Your task to perform on an android device: Open location settings Image 0: 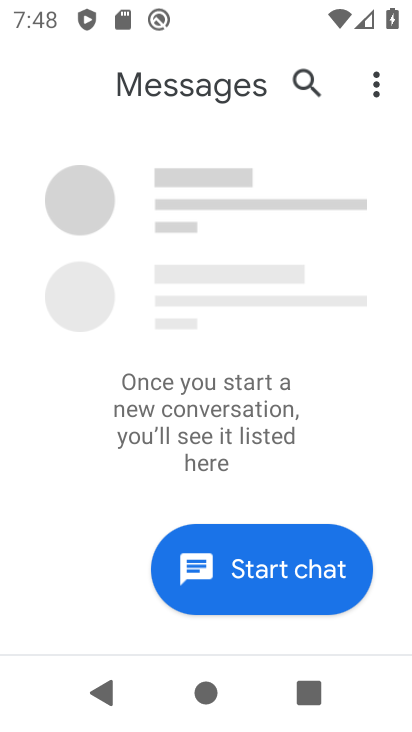
Step 0: press home button
Your task to perform on an android device: Open location settings Image 1: 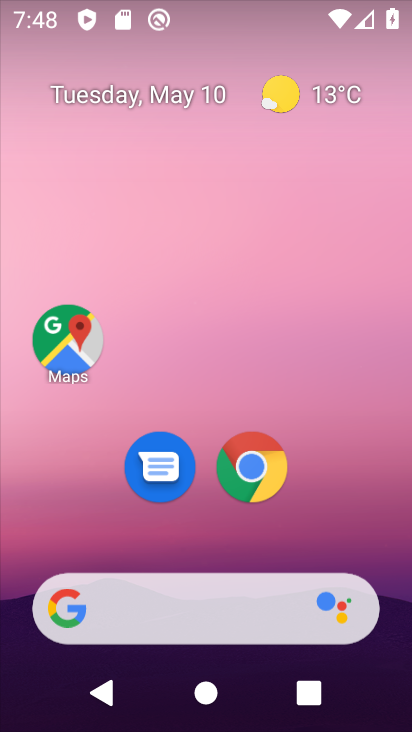
Step 1: drag from (235, 545) to (263, 166)
Your task to perform on an android device: Open location settings Image 2: 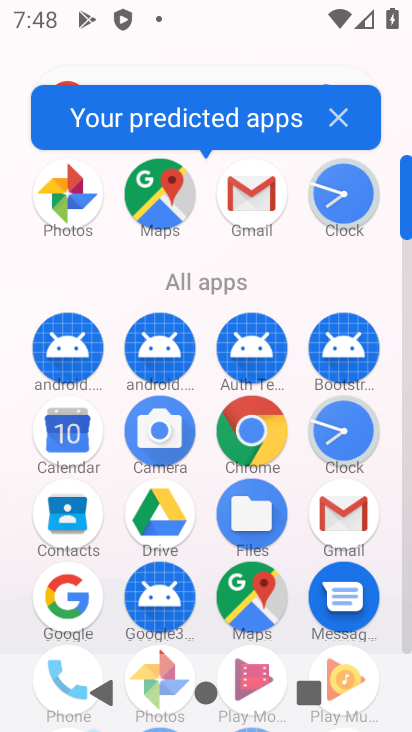
Step 2: drag from (324, 541) to (320, 224)
Your task to perform on an android device: Open location settings Image 3: 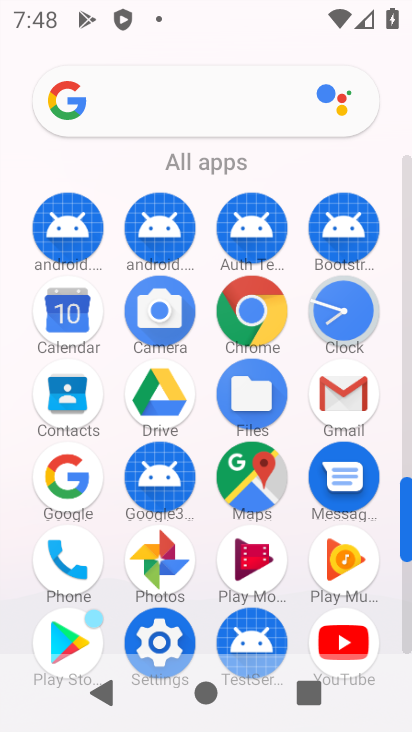
Step 3: click (162, 647)
Your task to perform on an android device: Open location settings Image 4: 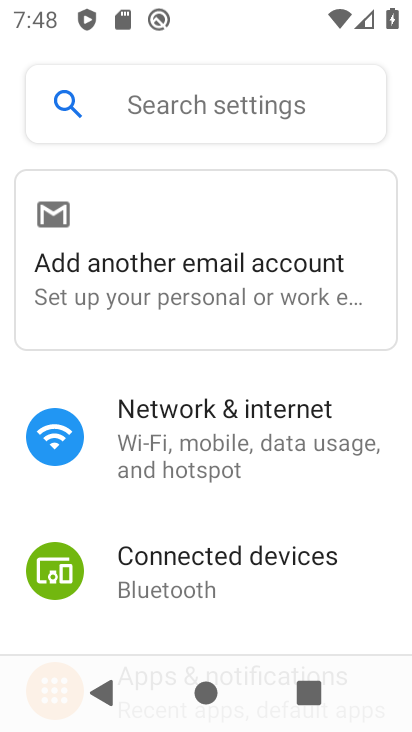
Step 4: drag from (298, 559) to (322, 162)
Your task to perform on an android device: Open location settings Image 5: 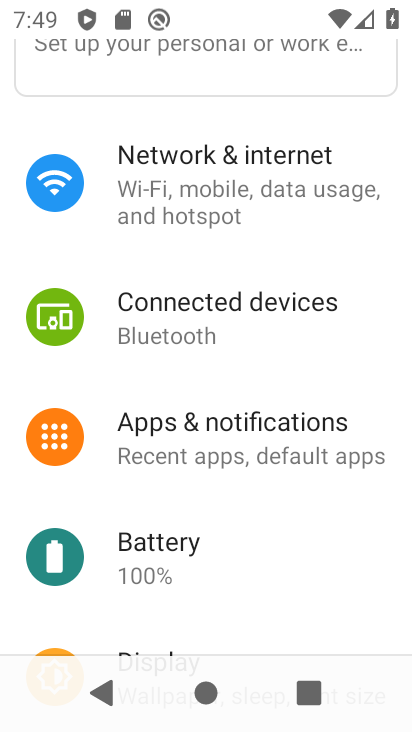
Step 5: drag from (302, 533) to (338, 146)
Your task to perform on an android device: Open location settings Image 6: 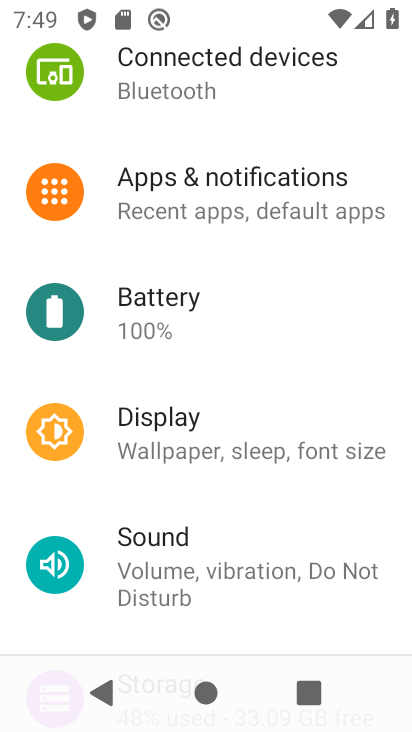
Step 6: drag from (304, 524) to (297, 143)
Your task to perform on an android device: Open location settings Image 7: 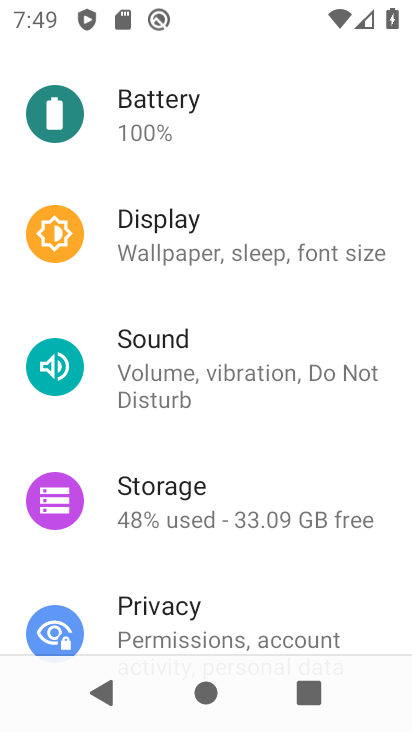
Step 7: drag from (252, 577) to (295, 196)
Your task to perform on an android device: Open location settings Image 8: 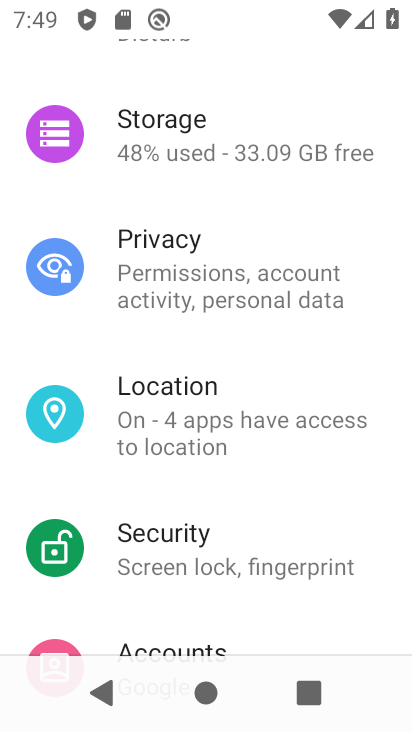
Step 8: drag from (289, 540) to (335, 131)
Your task to perform on an android device: Open location settings Image 9: 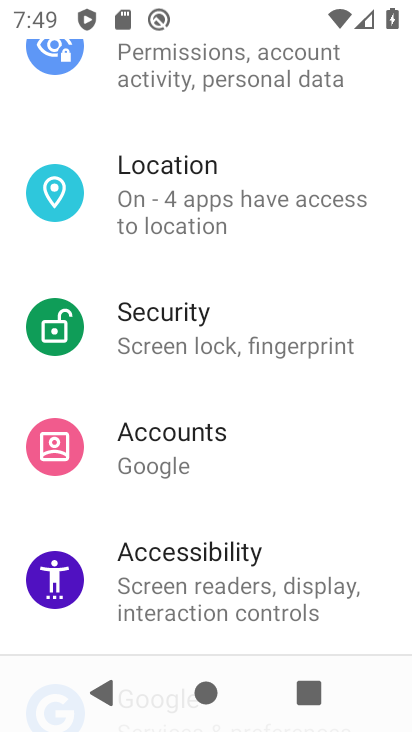
Step 9: click (309, 156)
Your task to perform on an android device: Open location settings Image 10: 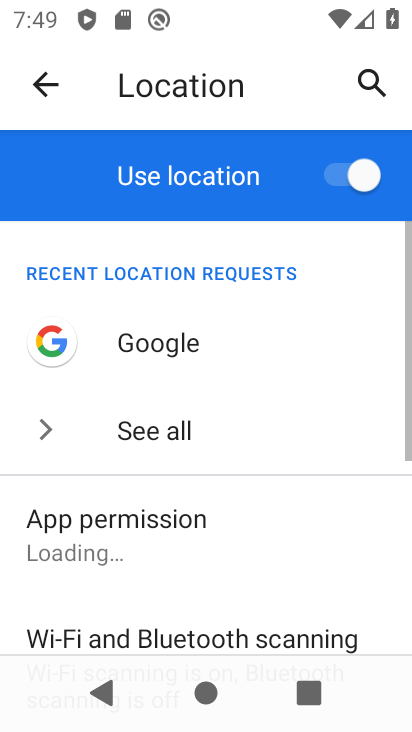
Step 10: task complete